Your task to perform on an android device: allow cookies in the chrome app Image 0: 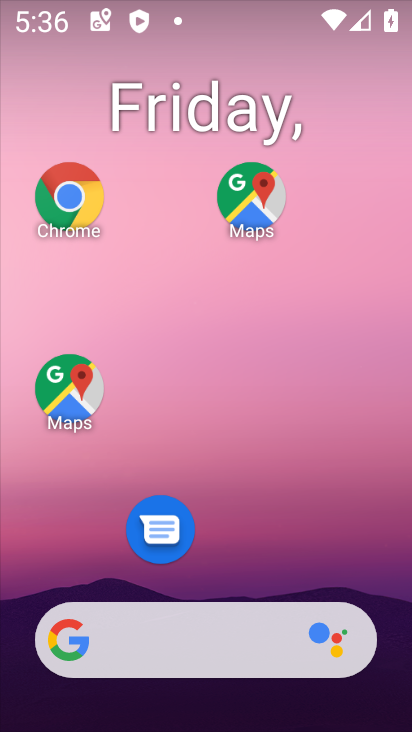
Step 0: drag from (249, 462) to (291, 100)
Your task to perform on an android device: allow cookies in the chrome app Image 1: 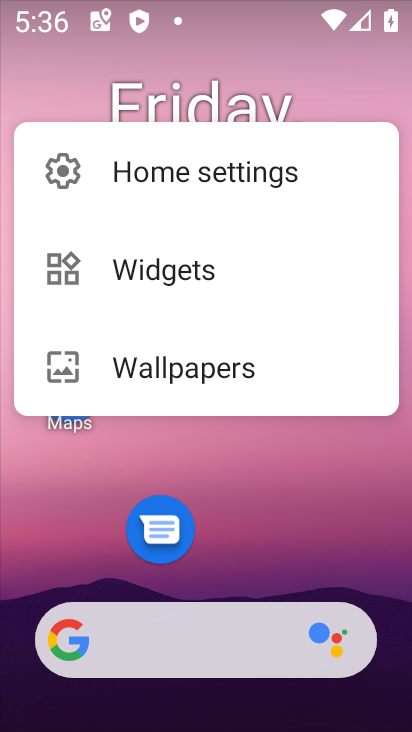
Step 1: click (251, 454)
Your task to perform on an android device: allow cookies in the chrome app Image 2: 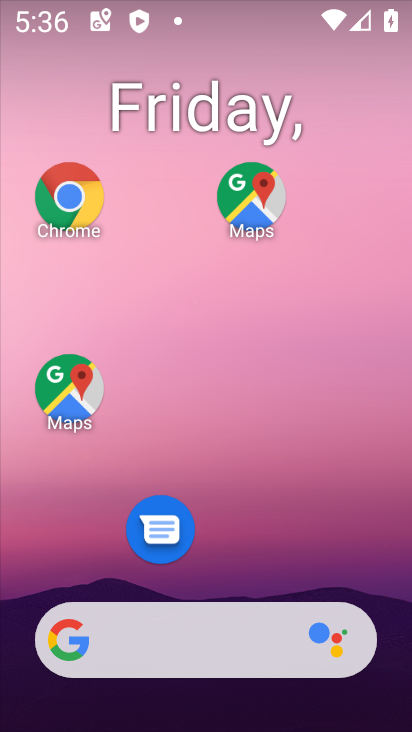
Step 2: click (72, 226)
Your task to perform on an android device: allow cookies in the chrome app Image 3: 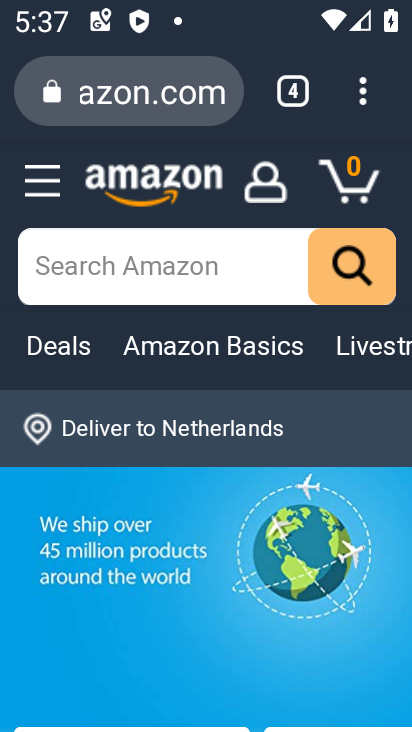
Step 3: click (363, 96)
Your task to perform on an android device: allow cookies in the chrome app Image 4: 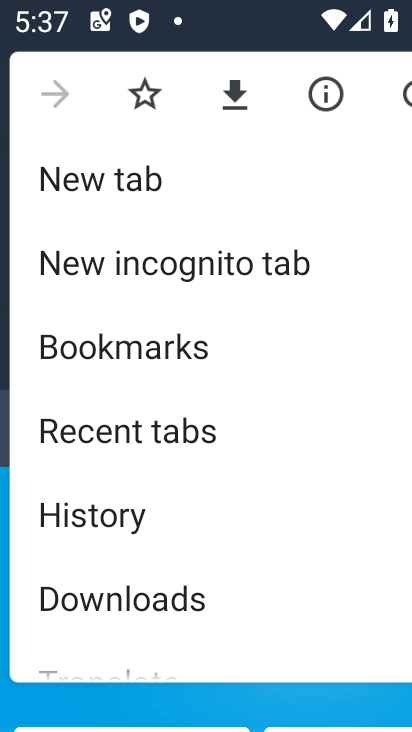
Step 4: drag from (182, 624) to (216, 288)
Your task to perform on an android device: allow cookies in the chrome app Image 5: 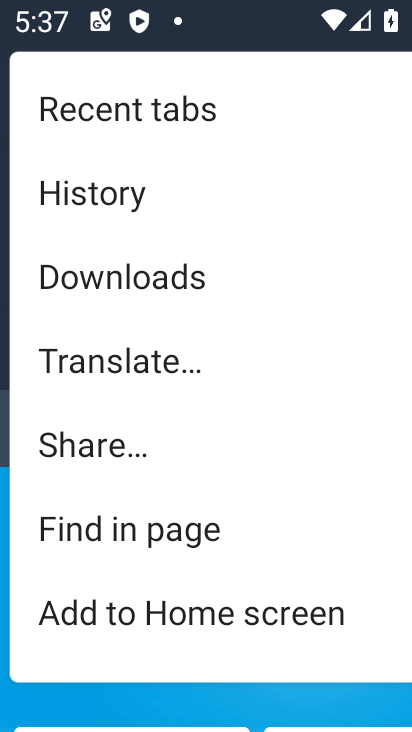
Step 5: drag from (161, 599) to (176, 255)
Your task to perform on an android device: allow cookies in the chrome app Image 6: 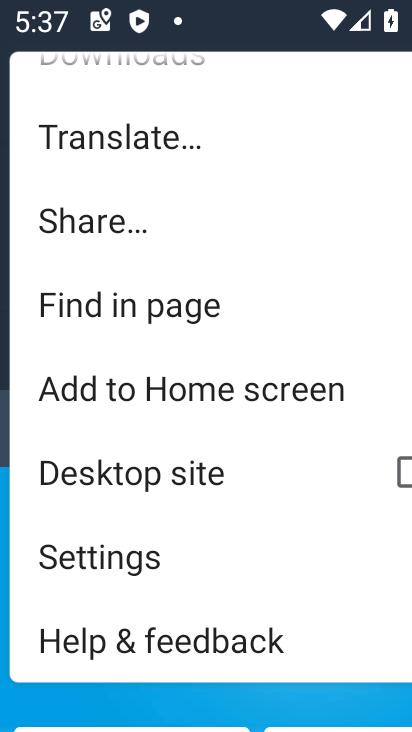
Step 6: click (94, 584)
Your task to perform on an android device: allow cookies in the chrome app Image 7: 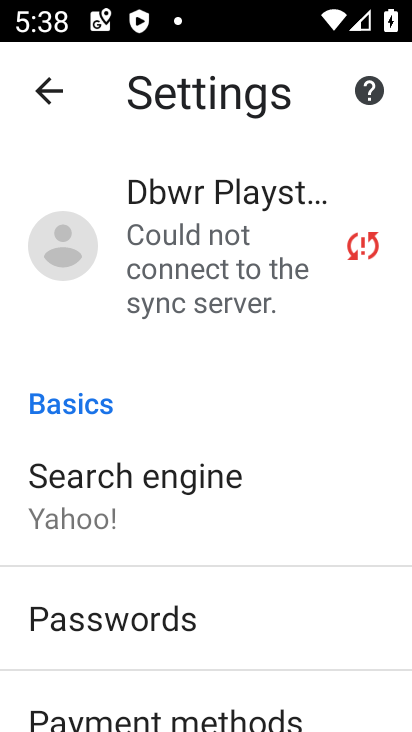
Step 7: drag from (174, 643) to (217, 235)
Your task to perform on an android device: allow cookies in the chrome app Image 8: 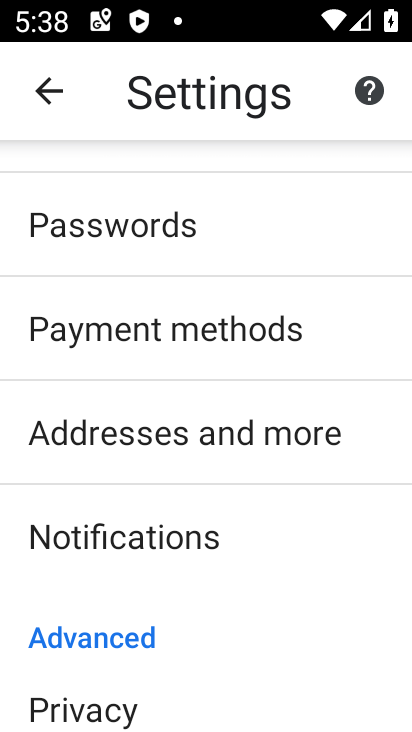
Step 8: drag from (201, 662) to (248, 304)
Your task to perform on an android device: allow cookies in the chrome app Image 9: 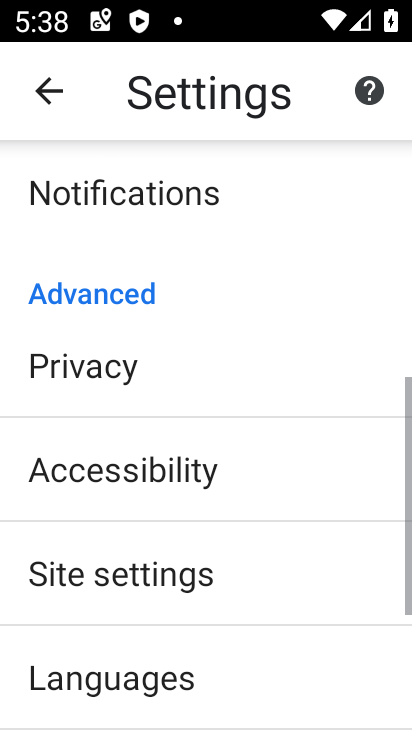
Step 9: drag from (133, 685) to (168, 446)
Your task to perform on an android device: allow cookies in the chrome app Image 10: 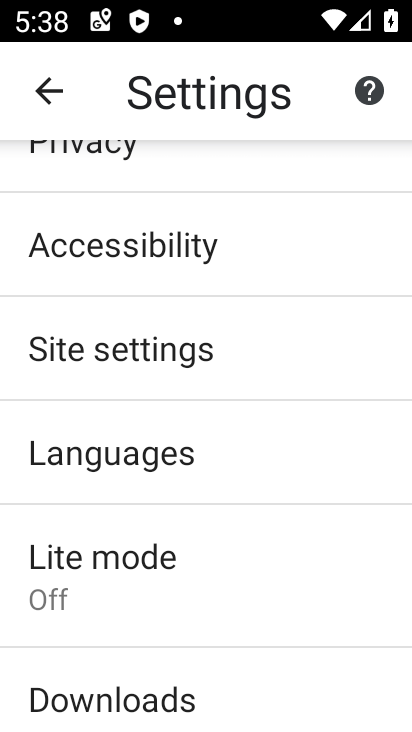
Step 10: drag from (192, 669) to (207, 346)
Your task to perform on an android device: allow cookies in the chrome app Image 11: 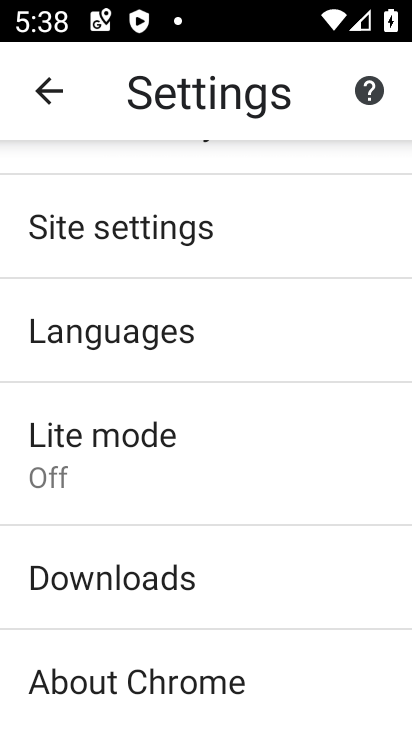
Step 11: click (118, 244)
Your task to perform on an android device: allow cookies in the chrome app Image 12: 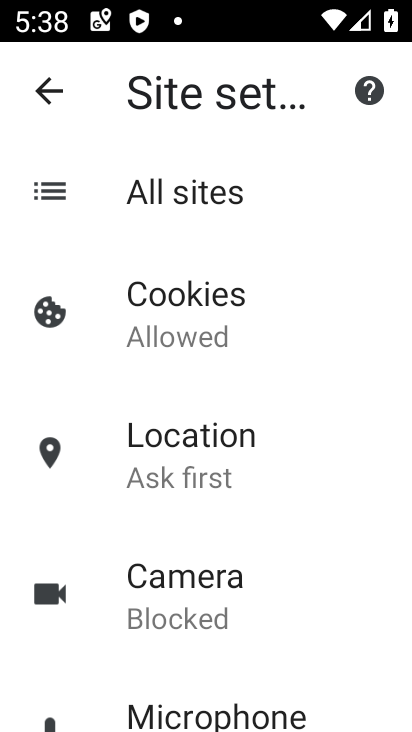
Step 12: click (193, 312)
Your task to perform on an android device: allow cookies in the chrome app Image 13: 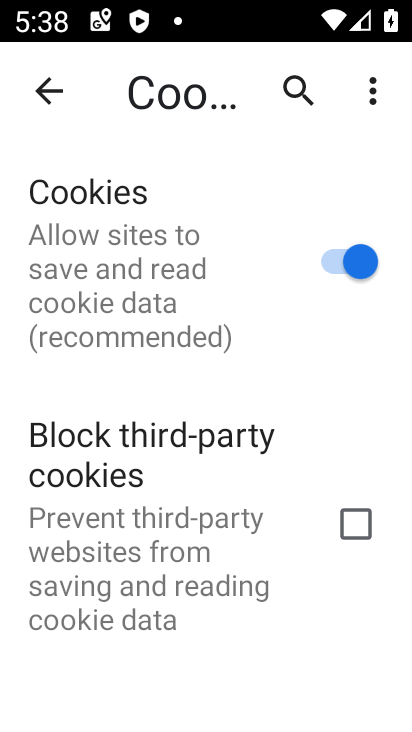
Step 13: task complete